Your task to perform on an android device: see sites visited before in the chrome app Image 0: 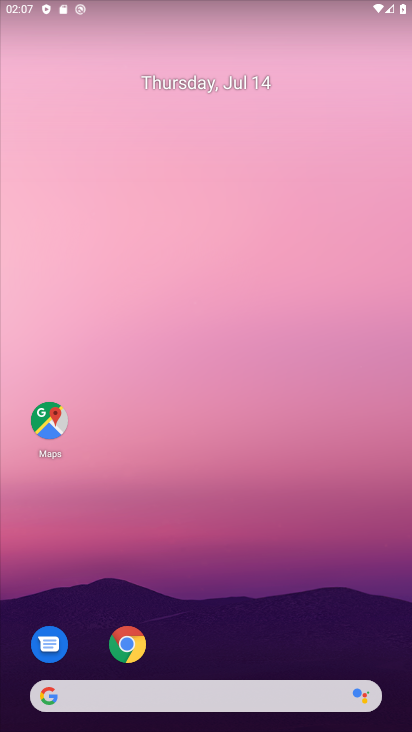
Step 0: click (142, 638)
Your task to perform on an android device: see sites visited before in the chrome app Image 1: 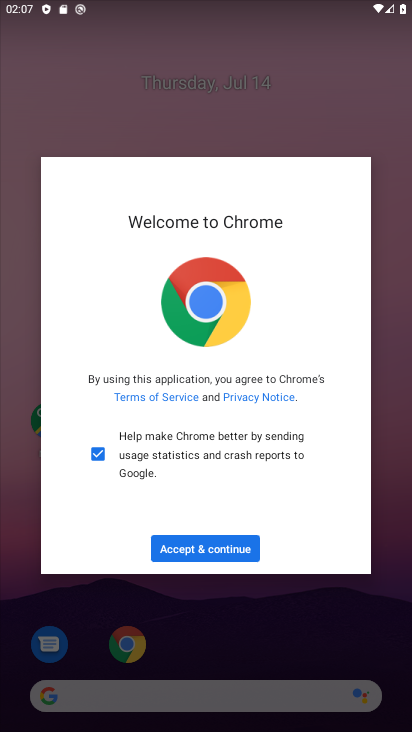
Step 1: click (199, 539)
Your task to perform on an android device: see sites visited before in the chrome app Image 2: 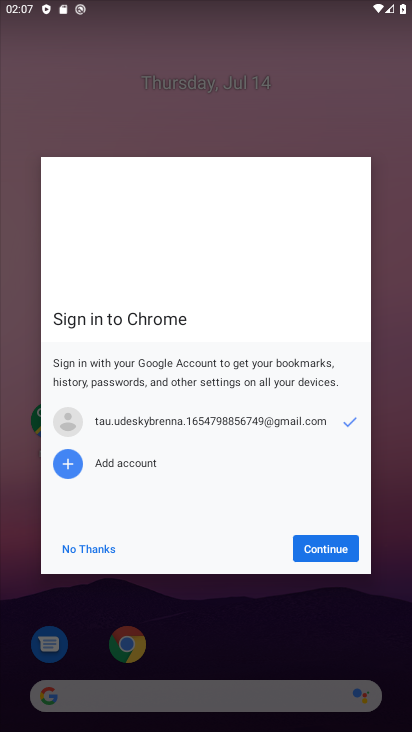
Step 2: click (341, 547)
Your task to perform on an android device: see sites visited before in the chrome app Image 3: 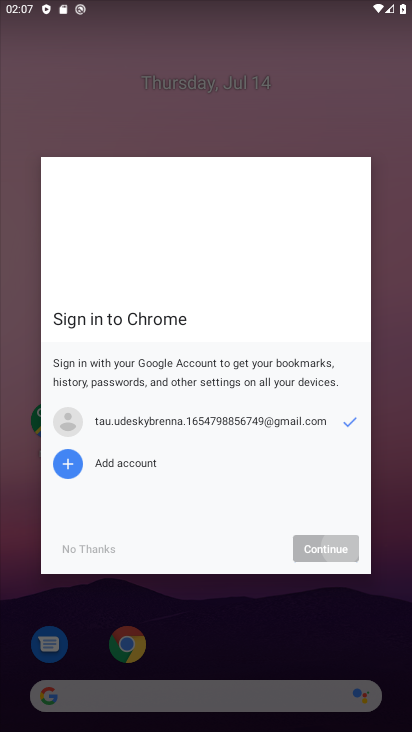
Step 3: click (341, 547)
Your task to perform on an android device: see sites visited before in the chrome app Image 4: 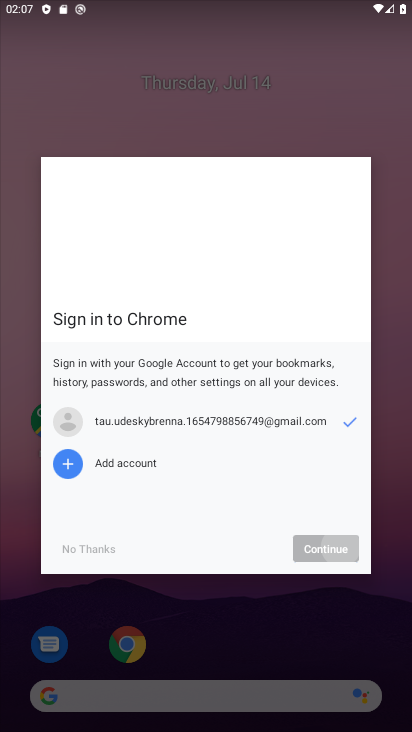
Step 4: click (341, 547)
Your task to perform on an android device: see sites visited before in the chrome app Image 5: 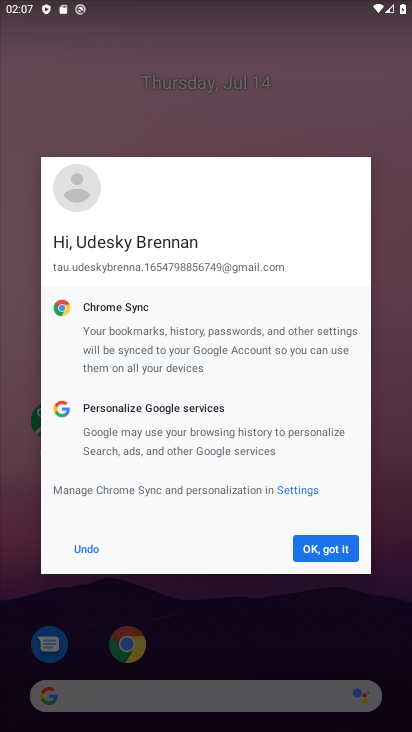
Step 5: click (341, 547)
Your task to perform on an android device: see sites visited before in the chrome app Image 6: 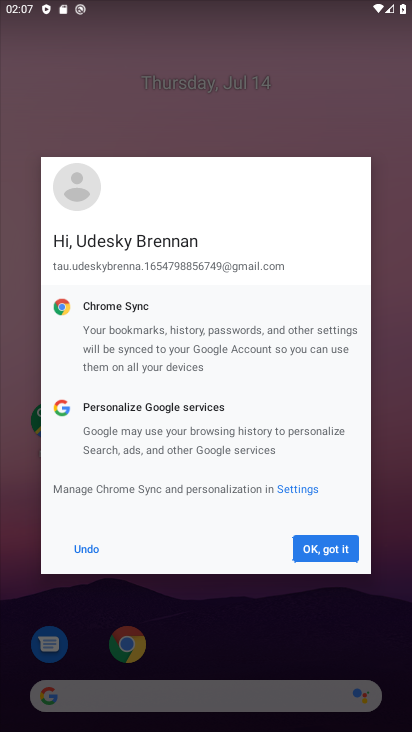
Step 6: click (341, 547)
Your task to perform on an android device: see sites visited before in the chrome app Image 7: 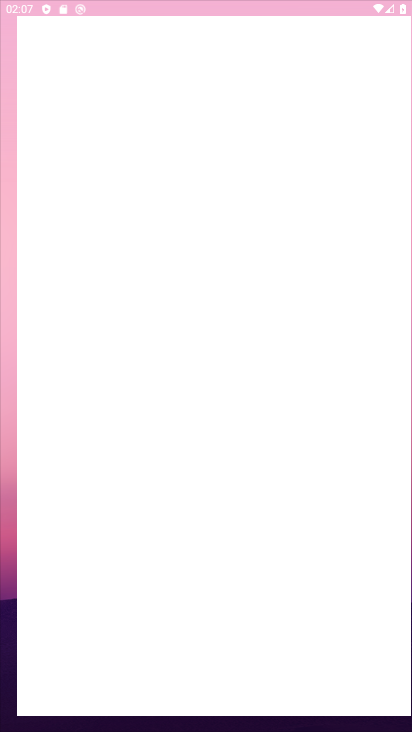
Step 7: click (341, 547)
Your task to perform on an android device: see sites visited before in the chrome app Image 8: 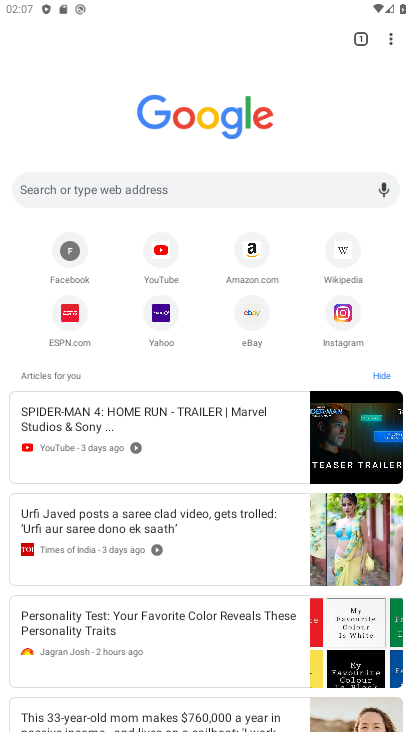
Step 8: click (388, 39)
Your task to perform on an android device: see sites visited before in the chrome app Image 9: 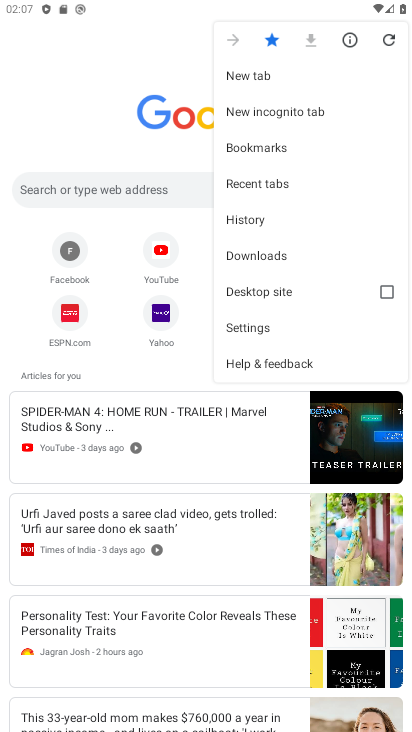
Step 9: click (253, 214)
Your task to perform on an android device: see sites visited before in the chrome app Image 10: 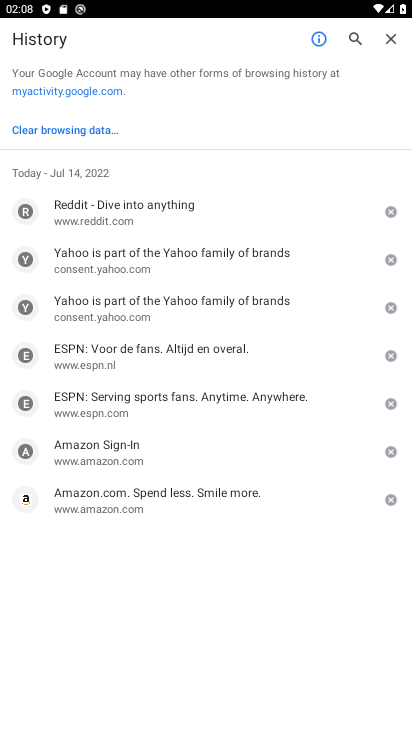
Step 10: task complete